Your task to perform on an android device: change text size in settings app Image 0: 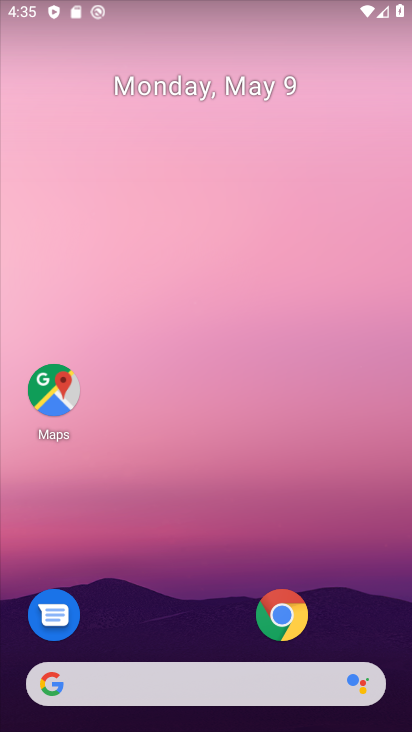
Step 0: drag from (190, 644) to (188, 324)
Your task to perform on an android device: change text size in settings app Image 1: 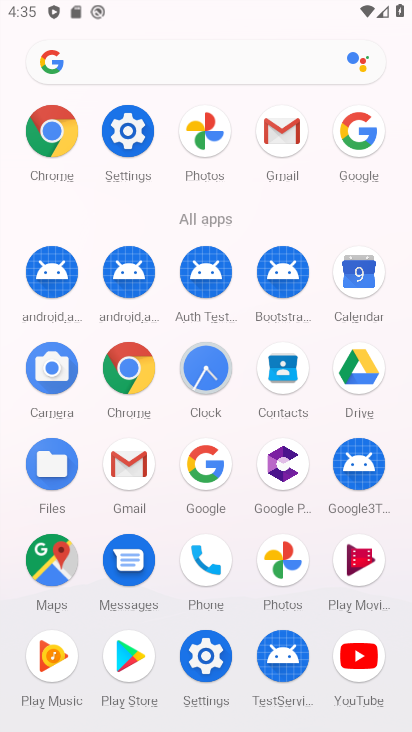
Step 1: click (116, 130)
Your task to perform on an android device: change text size in settings app Image 2: 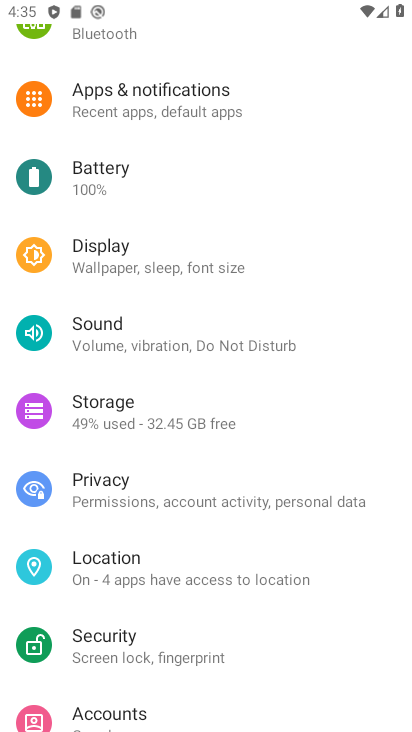
Step 2: drag from (185, 707) to (140, 262)
Your task to perform on an android device: change text size in settings app Image 3: 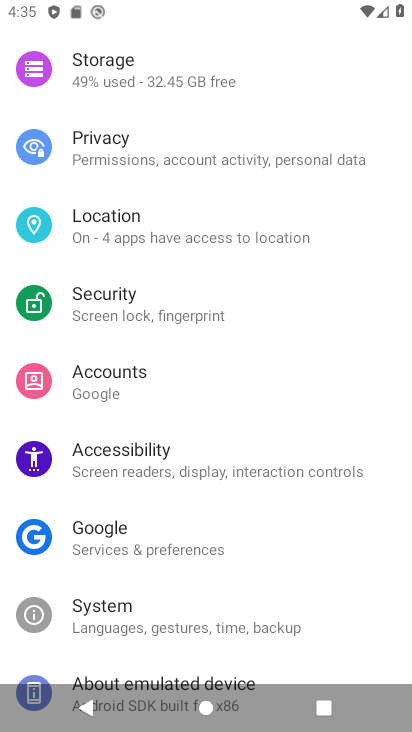
Step 3: drag from (145, 648) to (146, 340)
Your task to perform on an android device: change text size in settings app Image 4: 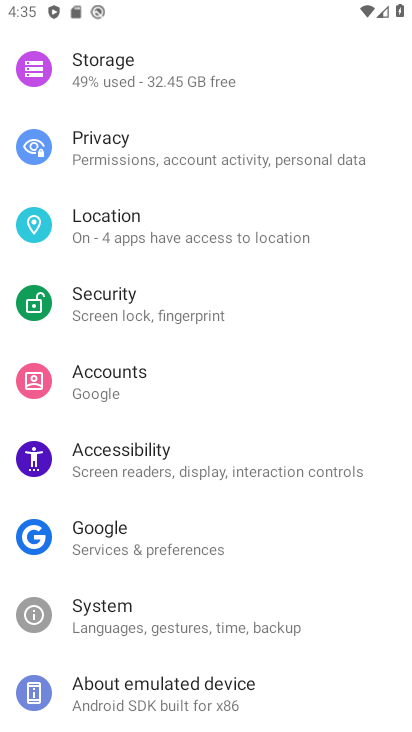
Step 4: click (121, 453)
Your task to perform on an android device: change text size in settings app Image 5: 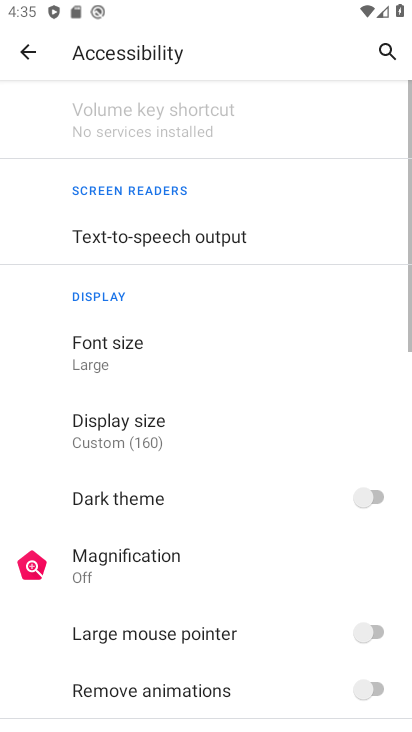
Step 5: click (122, 348)
Your task to perform on an android device: change text size in settings app Image 6: 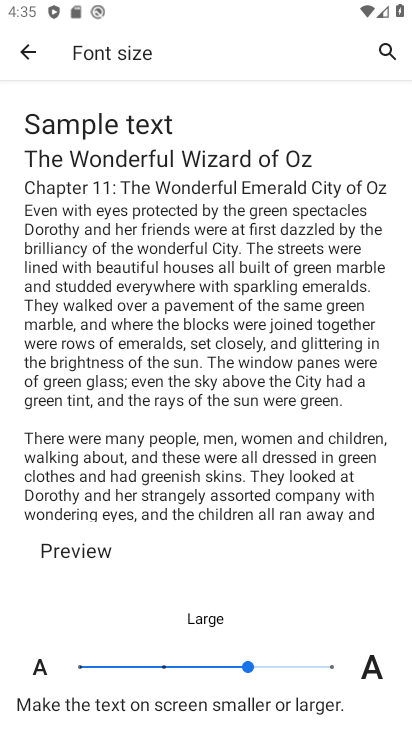
Step 6: click (172, 670)
Your task to perform on an android device: change text size in settings app Image 7: 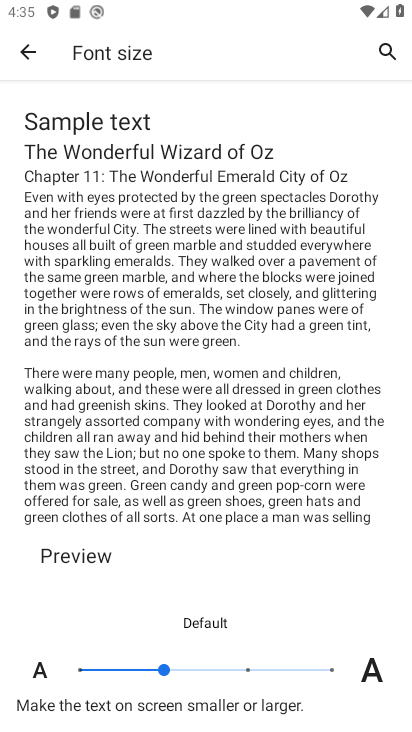
Step 7: task complete